Your task to perform on an android device: Open the Play Movies app and select the watchlist tab. Image 0: 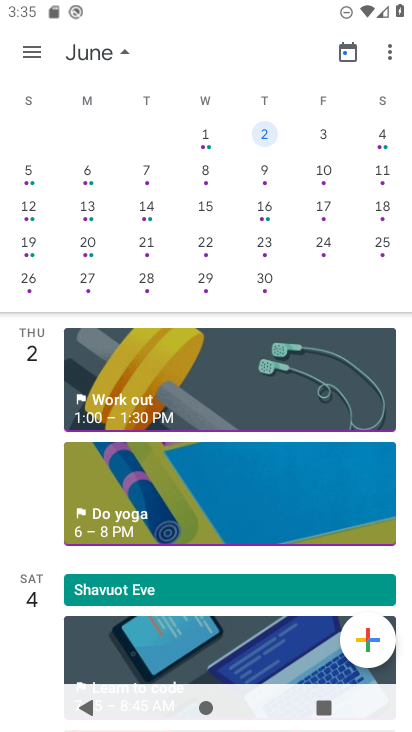
Step 0: press home button
Your task to perform on an android device: Open the Play Movies app and select the watchlist tab. Image 1: 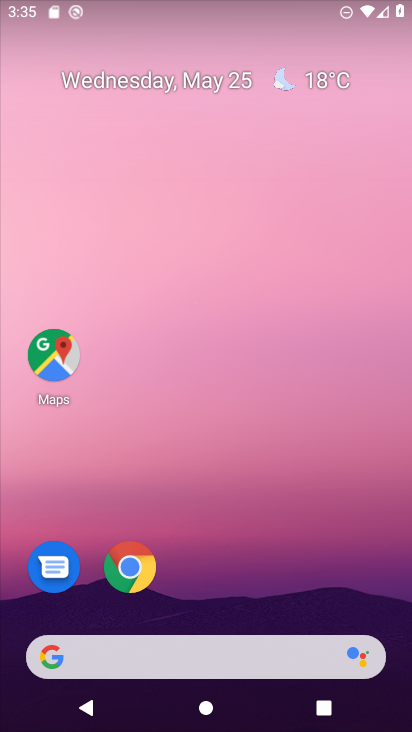
Step 1: drag from (373, 578) to (376, 249)
Your task to perform on an android device: Open the Play Movies app and select the watchlist tab. Image 2: 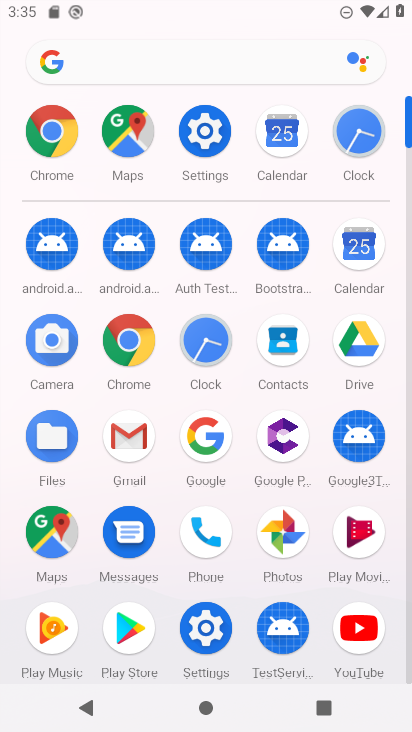
Step 2: click (360, 558)
Your task to perform on an android device: Open the Play Movies app and select the watchlist tab. Image 3: 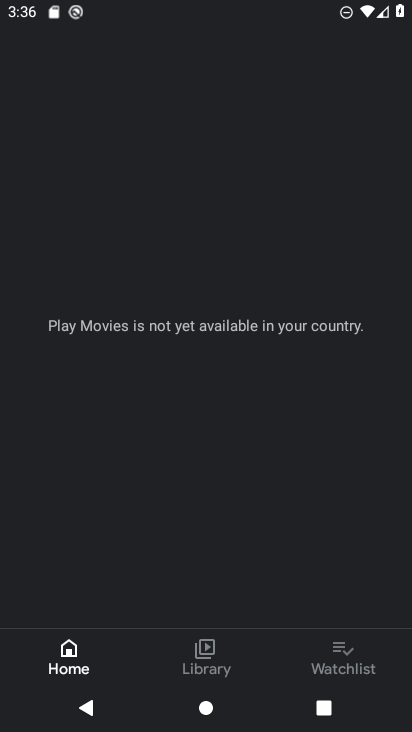
Step 3: click (333, 650)
Your task to perform on an android device: Open the Play Movies app and select the watchlist tab. Image 4: 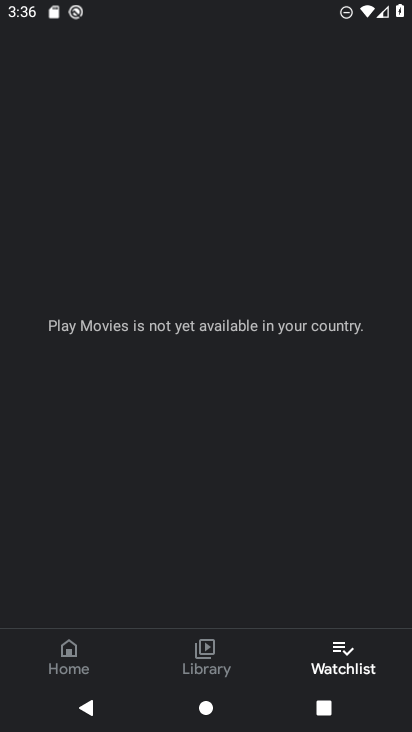
Step 4: task complete